Your task to perform on an android device: allow notifications from all sites in the chrome app Image 0: 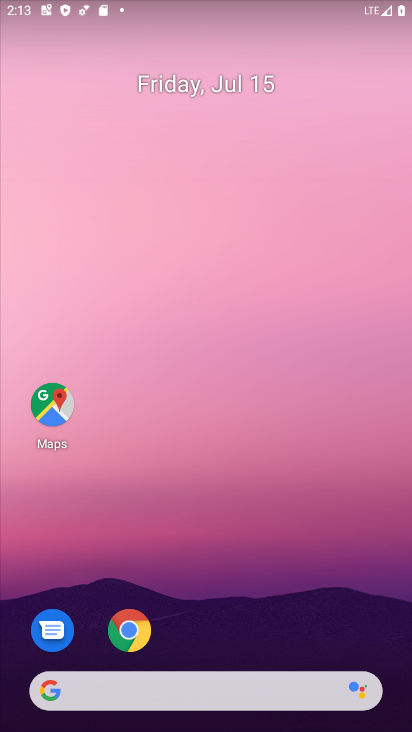
Step 0: press home button
Your task to perform on an android device: allow notifications from all sites in the chrome app Image 1: 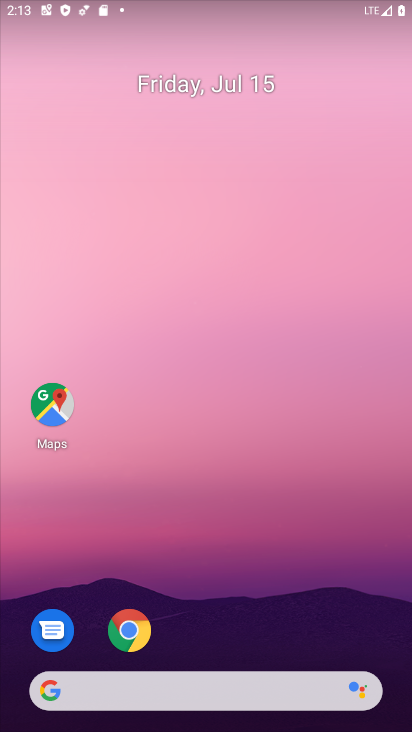
Step 1: click (142, 624)
Your task to perform on an android device: allow notifications from all sites in the chrome app Image 2: 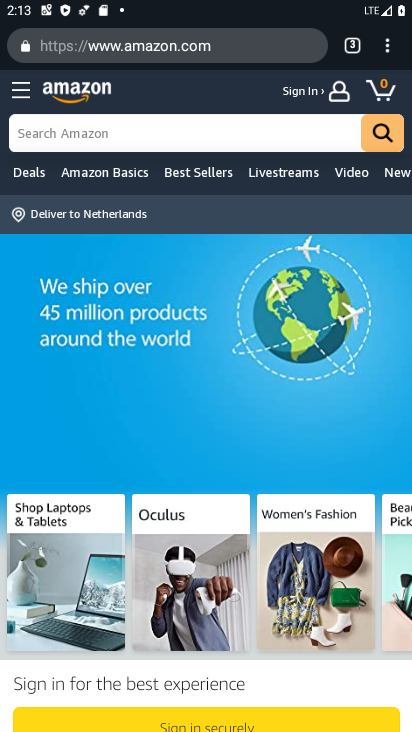
Step 2: drag from (393, 56) to (242, 550)
Your task to perform on an android device: allow notifications from all sites in the chrome app Image 3: 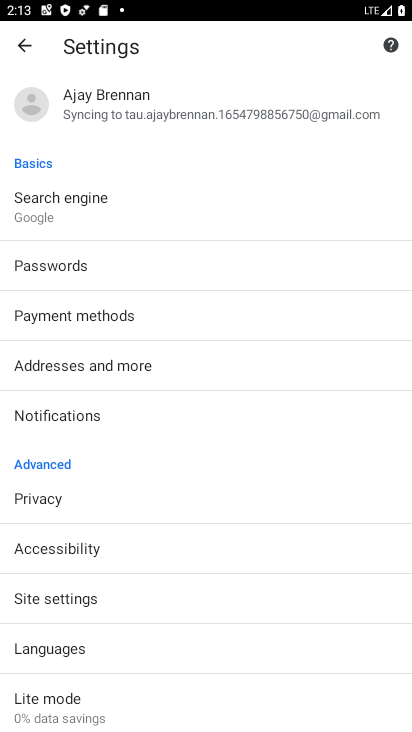
Step 3: click (65, 597)
Your task to perform on an android device: allow notifications from all sites in the chrome app Image 4: 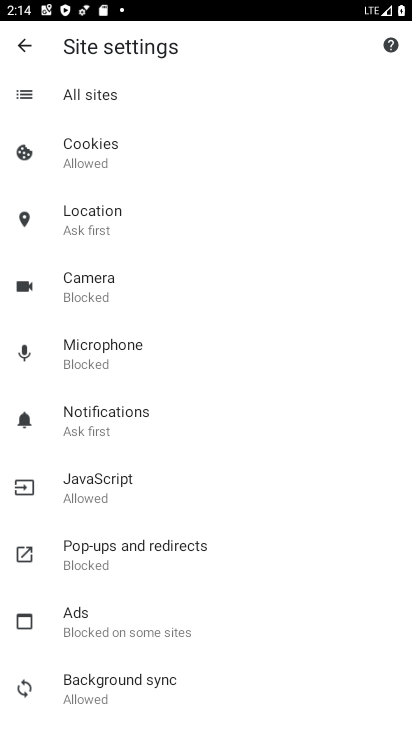
Step 4: click (85, 417)
Your task to perform on an android device: allow notifications from all sites in the chrome app Image 5: 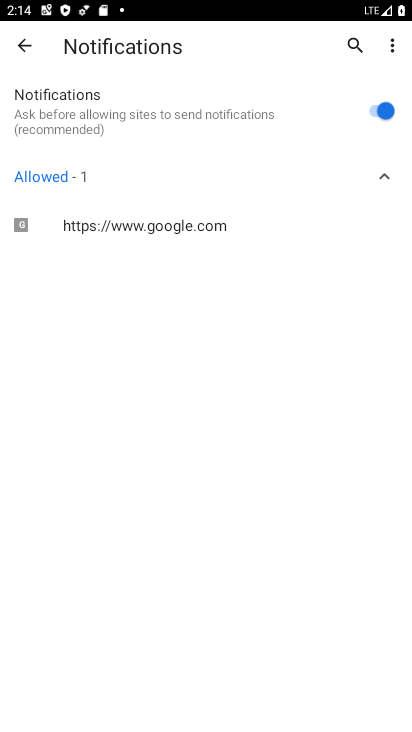
Step 5: task complete